Your task to perform on an android device: create a new album in the google photos Image 0: 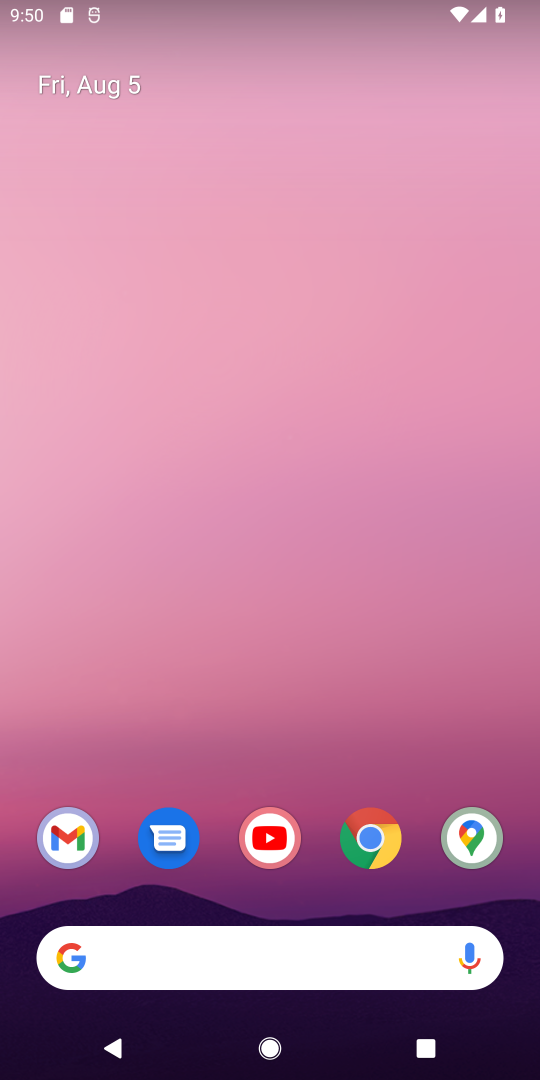
Step 0: task impossible